Your task to perform on an android device: turn on data saver in the chrome app Image 0: 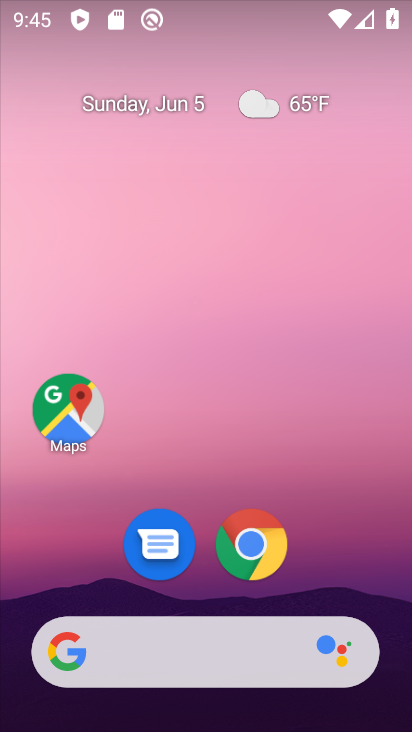
Step 0: click (268, 529)
Your task to perform on an android device: turn on data saver in the chrome app Image 1: 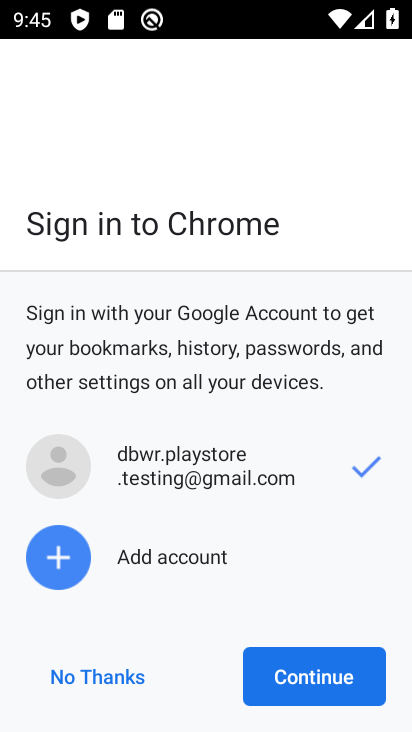
Step 1: click (317, 680)
Your task to perform on an android device: turn on data saver in the chrome app Image 2: 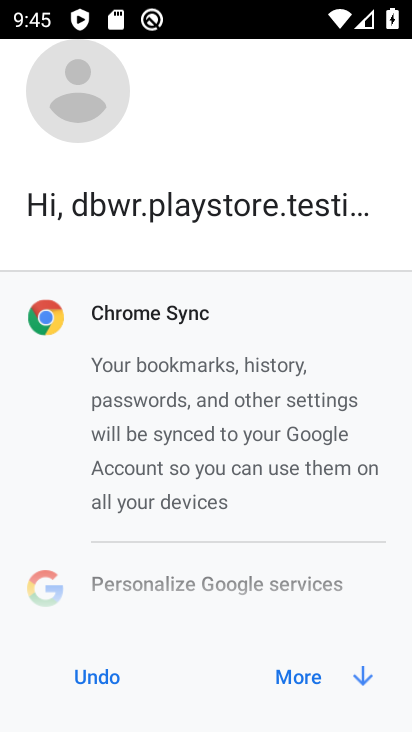
Step 2: click (317, 680)
Your task to perform on an android device: turn on data saver in the chrome app Image 3: 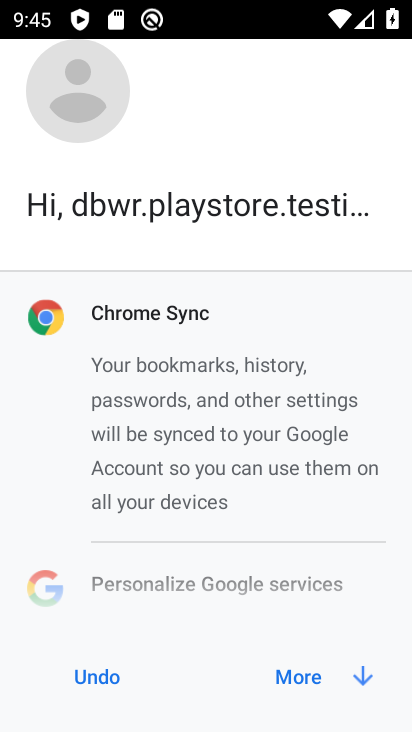
Step 3: click (317, 680)
Your task to perform on an android device: turn on data saver in the chrome app Image 4: 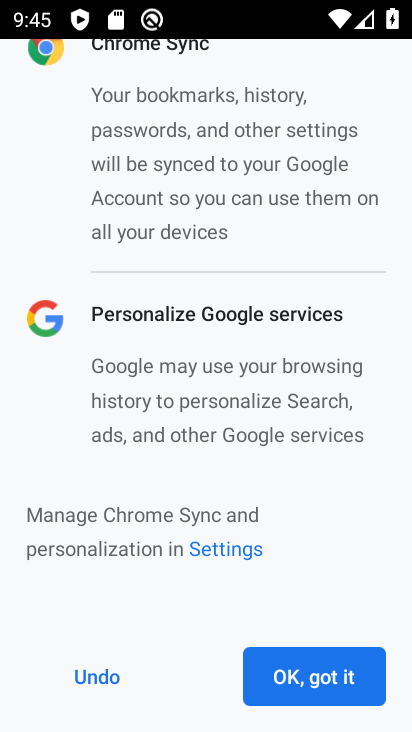
Step 4: click (317, 680)
Your task to perform on an android device: turn on data saver in the chrome app Image 5: 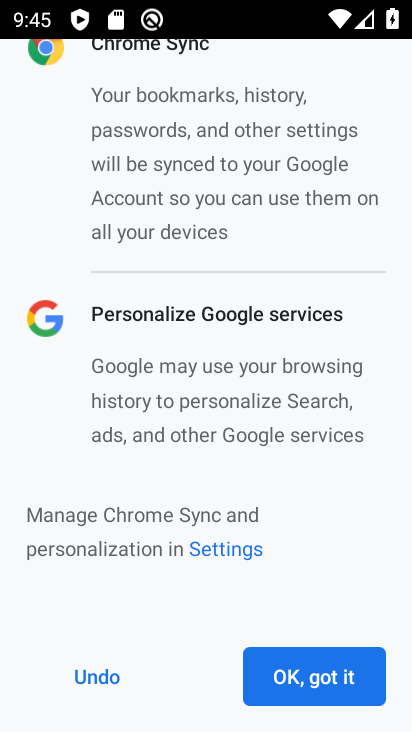
Step 5: click (317, 680)
Your task to perform on an android device: turn on data saver in the chrome app Image 6: 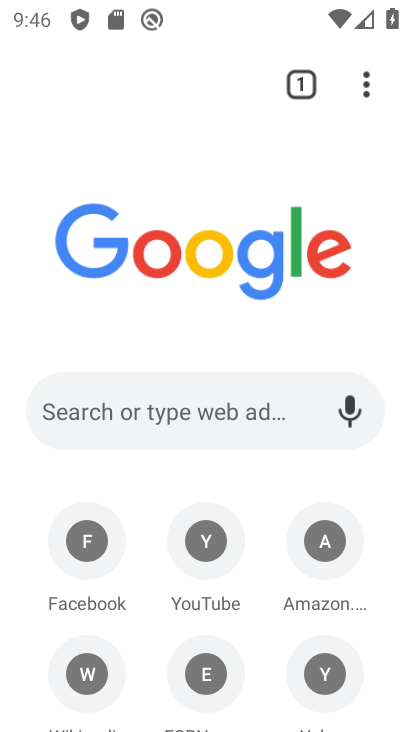
Step 6: task complete